Your task to perform on an android device: toggle wifi Image 0: 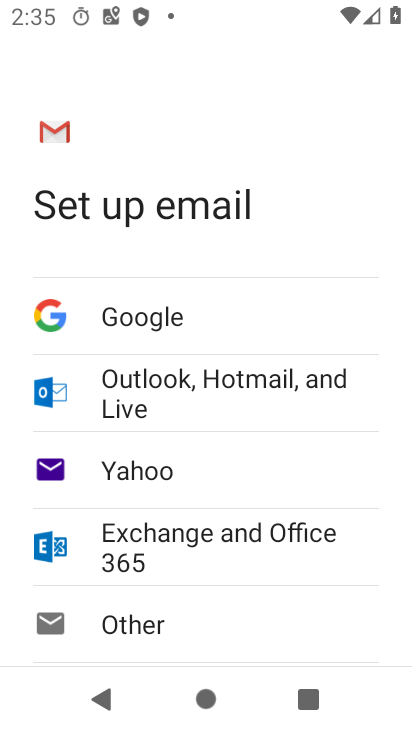
Step 0: press home button
Your task to perform on an android device: toggle wifi Image 1: 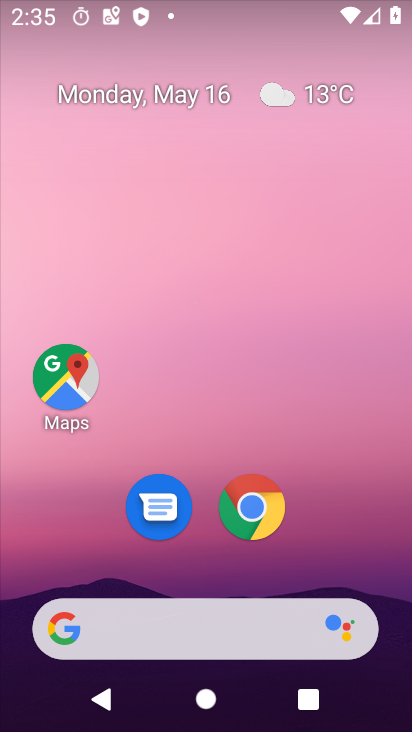
Step 1: drag from (351, 546) to (346, 144)
Your task to perform on an android device: toggle wifi Image 2: 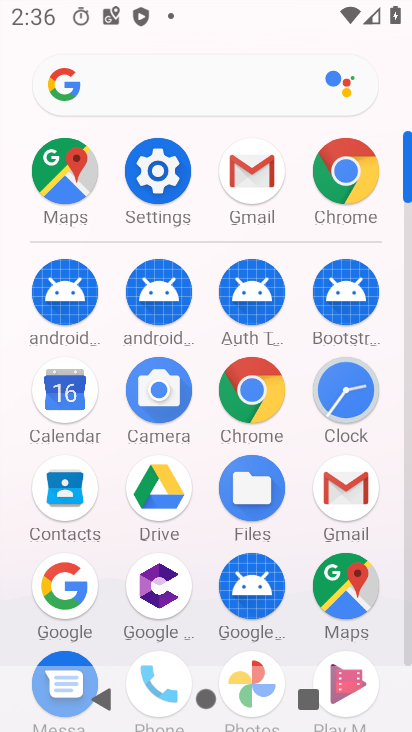
Step 2: click (179, 182)
Your task to perform on an android device: toggle wifi Image 3: 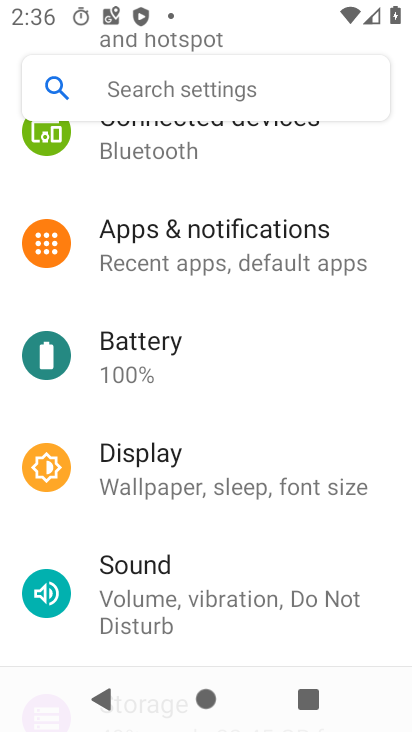
Step 3: drag from (374, 619) to (371, 461)
Your task to perform on an android device: toggle wifi Image 4: 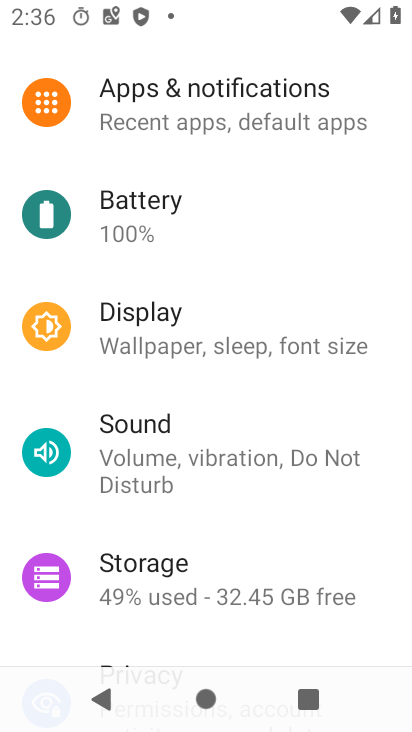
Step 4: drag from (367, 639) to (379, 450)
Your task to perform on an android device: toggle wifi Image 5: 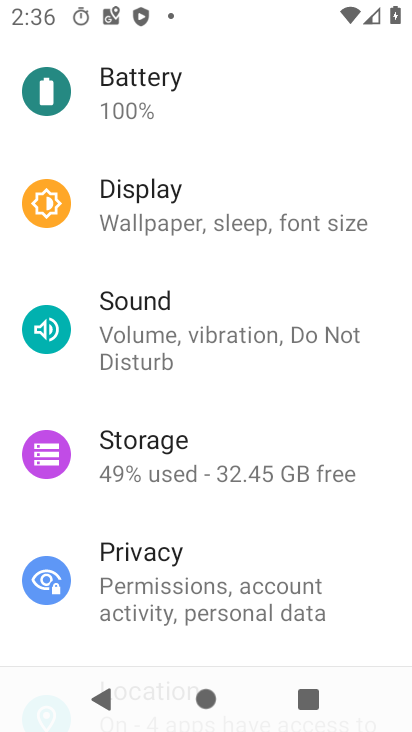
Step 5: drag from (362, 608) to (370, 394)
Your task to perform on an android device: toggle wifi Image 6: 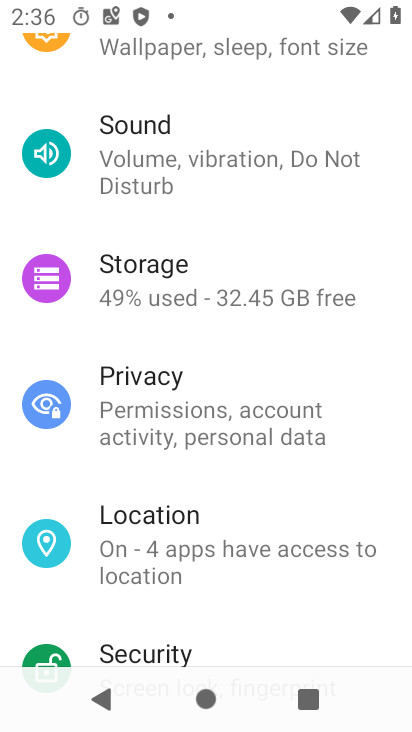
Step 6: drag from (339, 611) to (364, 411)
Your task to perform on an android device: toggle wifi Image 7: 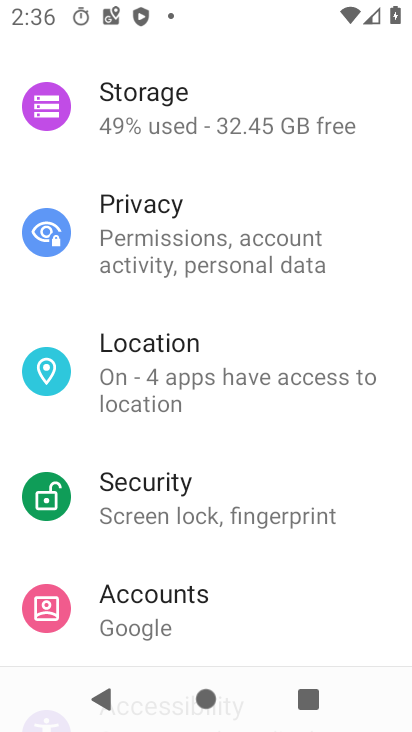
Step 7: drag from (336, 628) to (353, 459)
Your task to perform on an android device: toggle wifi Image 8: 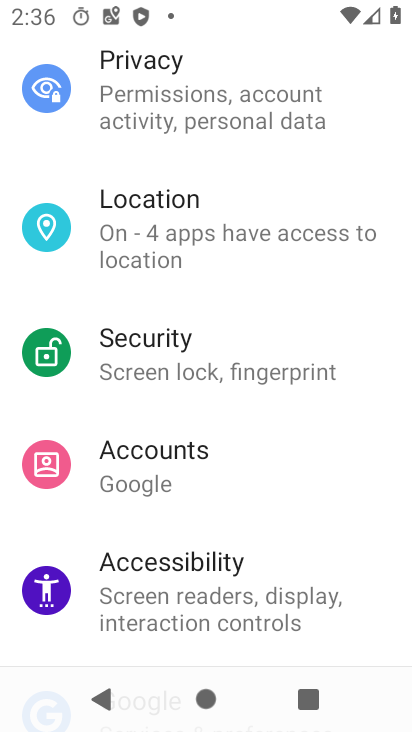
Step 8: drag from (332, 642) to (341, 416)
Your task to perform on an android device: toggle wifi Image 9: 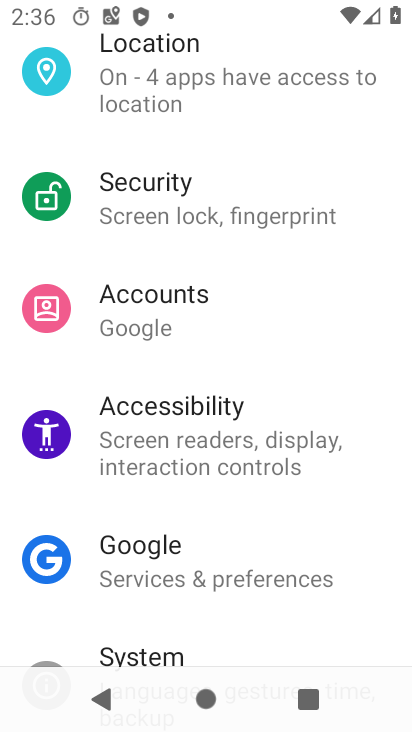
Step 9: drag from (346, 624) to (347, 426)
Your task to perform on an android device: toggle wifi Image 10: 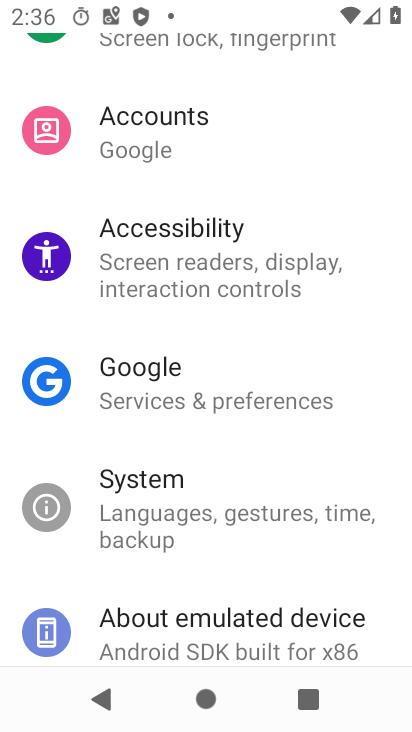
Step 10: drag from (374, 317) to (361, 431)
Your task to perform on an android device: toggle wifi Image 11: 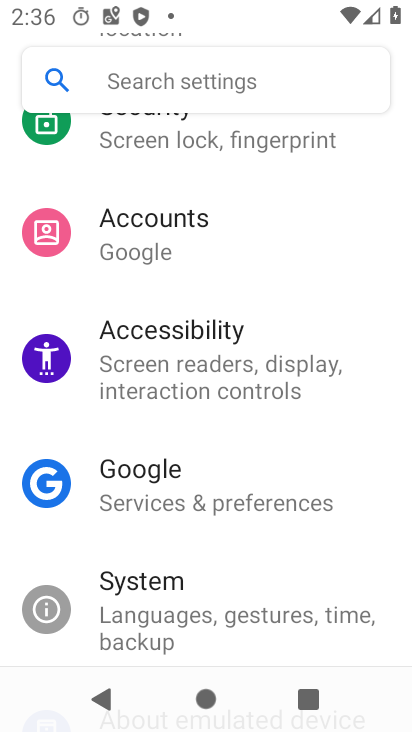
Step 11: drag from (360, 231) to (360, 285)
Your task to perform on an android device: toggle wifi Image 12: 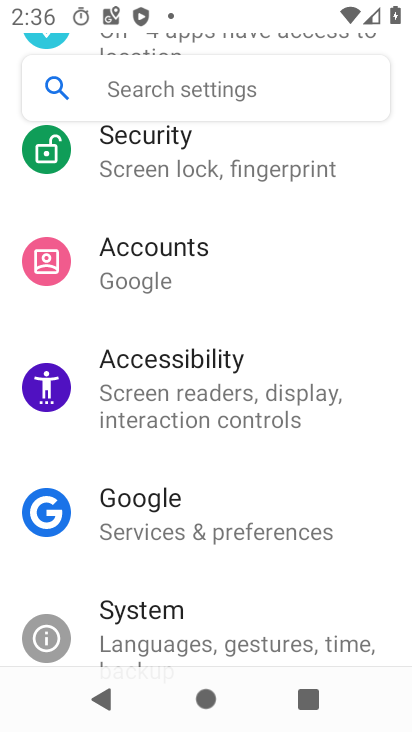
Step 12: drag from (359, 234) to (347, 465)
Your task to perform on an android device: toggle wifi Image 13: 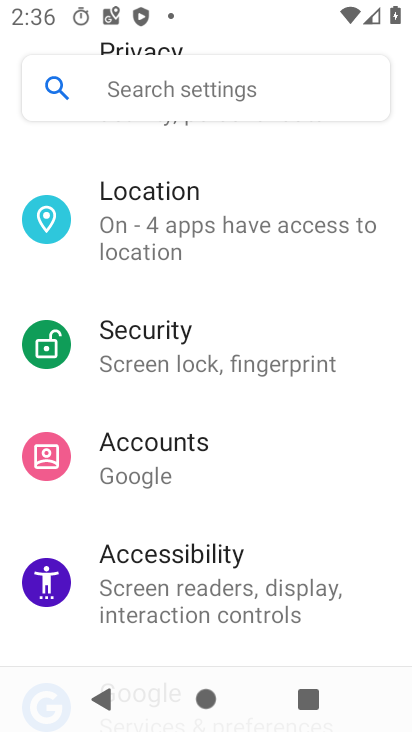
Step 13: drag from (359, 267) to (357, 446)
Your task to perform on an android device: toggle wifi Image 14: 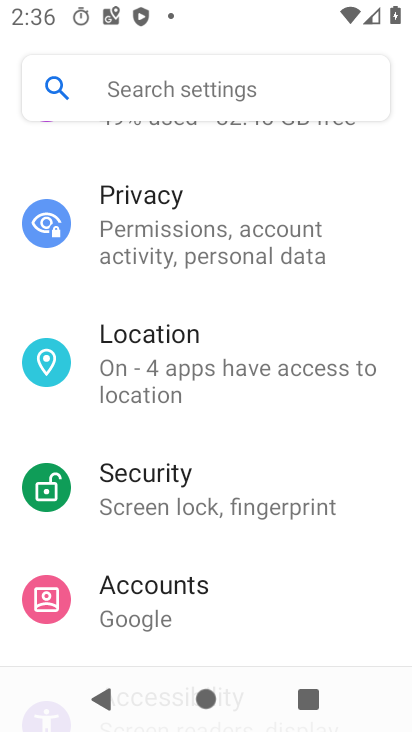
Step 14: drag from (352, 200) to (348, 440)
Your task to perform on an android device: toggle wifi Image 15: 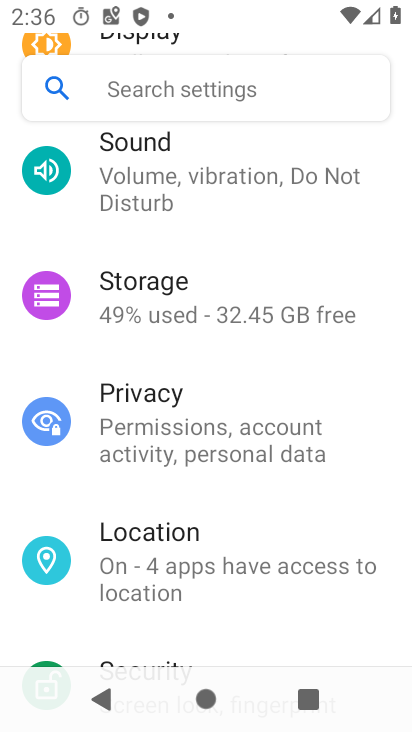
Step 15: drag from (370, 220) to (371, 394)
Your task to perform on an android device: toggle wifi Image 16: 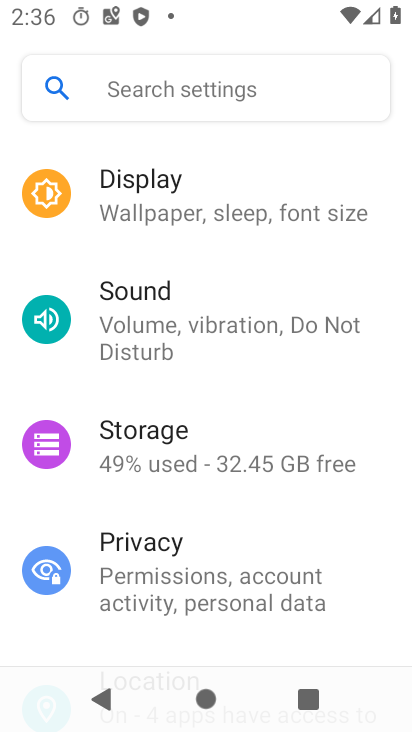
Step 16: drag from (376, 167) to (375, 345)
Your task to perform on an android device: toggle wifi Image 17: 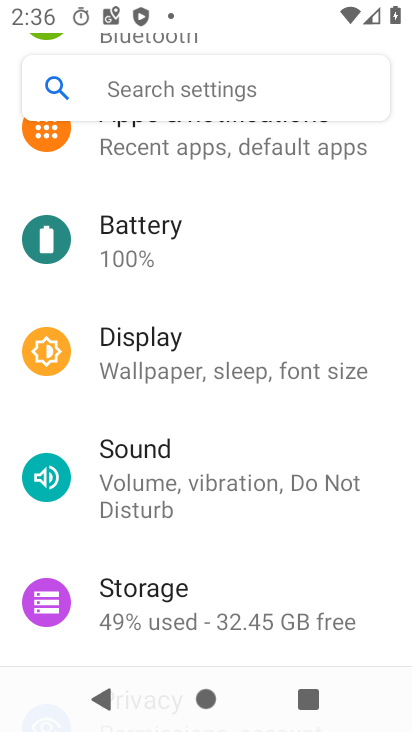
Step 17: drag from (386, 168) to (382, 358)
Your task to perform on an android device: toggle wifi Image 18: 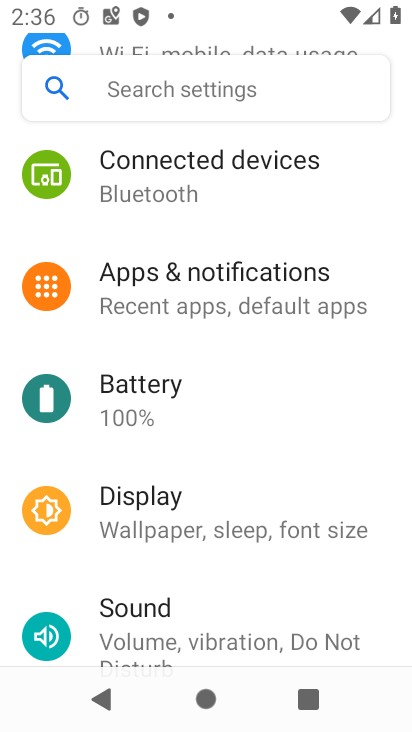
Step 18: drag from (369, 197) to (366, 453)
Your task to perform on an android device: toggle wifi Image 19: 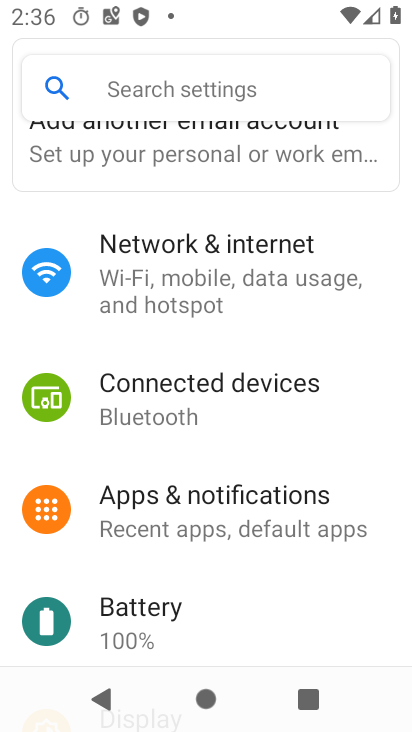
Step 19: click (219, 271)
Your task to perform on an android device: toggle wifi Image 20: 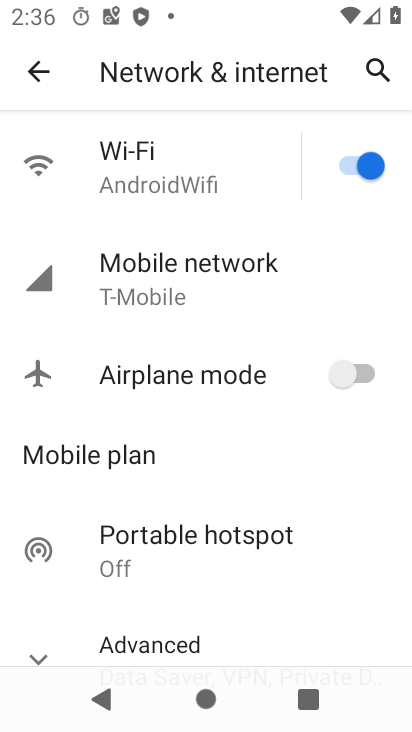
Step 20: click (375, 171)
Your task to perform on an android device: toggle wifi Image 21: 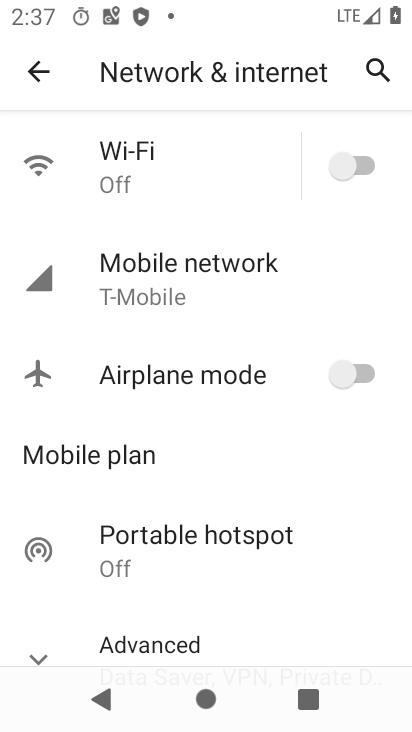
Step 21: task complete